Your task to perform on an android device: Is it going to rain tomorrow? Image 0: 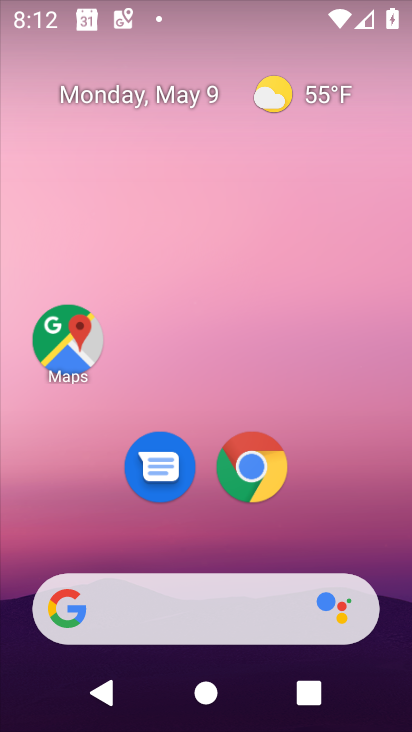
Step 0: click (310, 98)
Your task to perform on an android device: Is it going to rain tomorrow? Image 1: 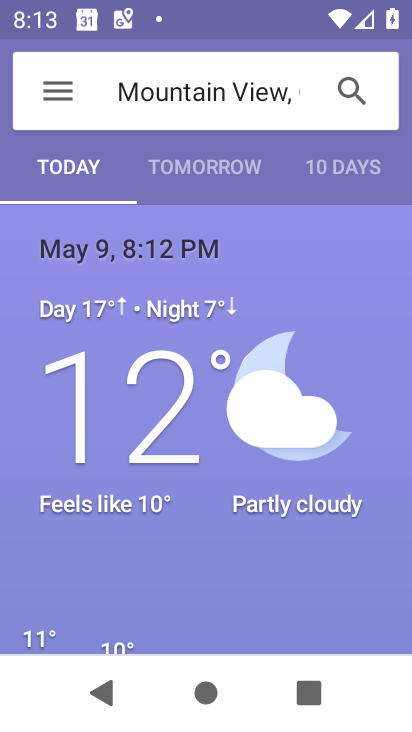
Step 1: click (243, 168)
Your task to perform on an android device: Is it going to rain tomorrow? Image 2: 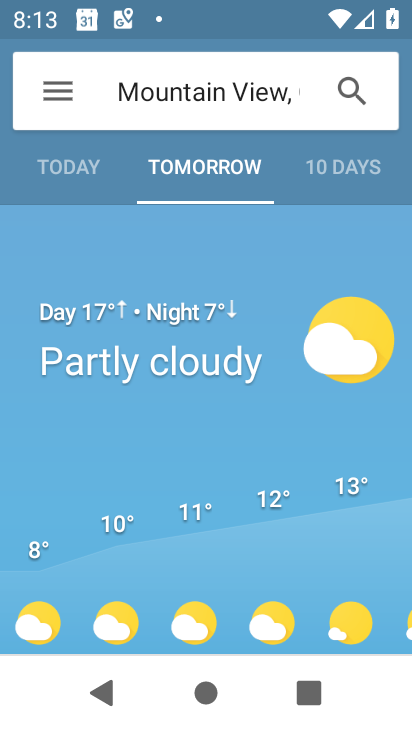
Step 2: task complete